Your task to perform on an android device: Go to display settings Image 0: 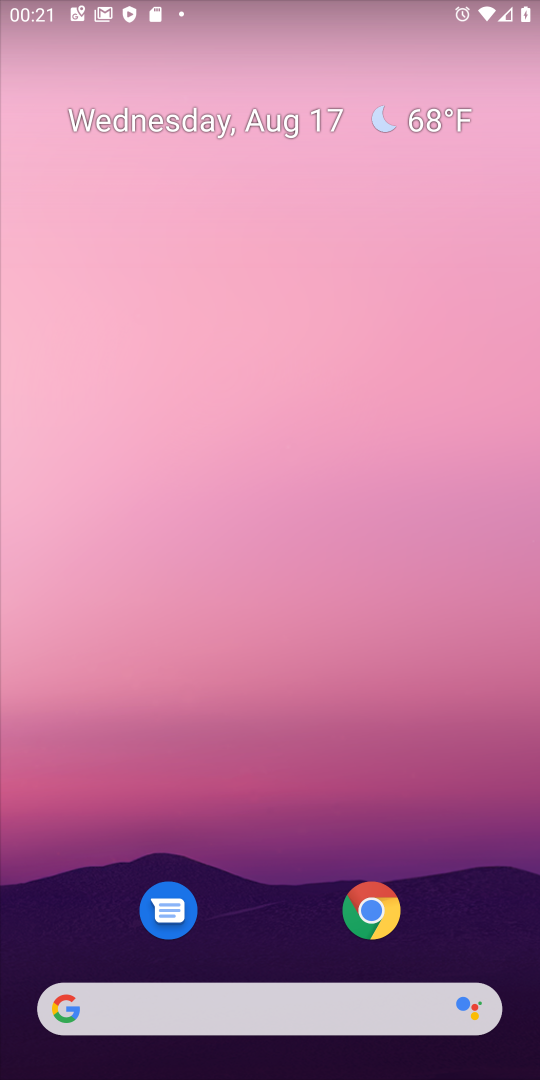
Step 0: drag from (262, 917) to (355, 74)
Your task to perform on an android device: Go to display settings Image 1: 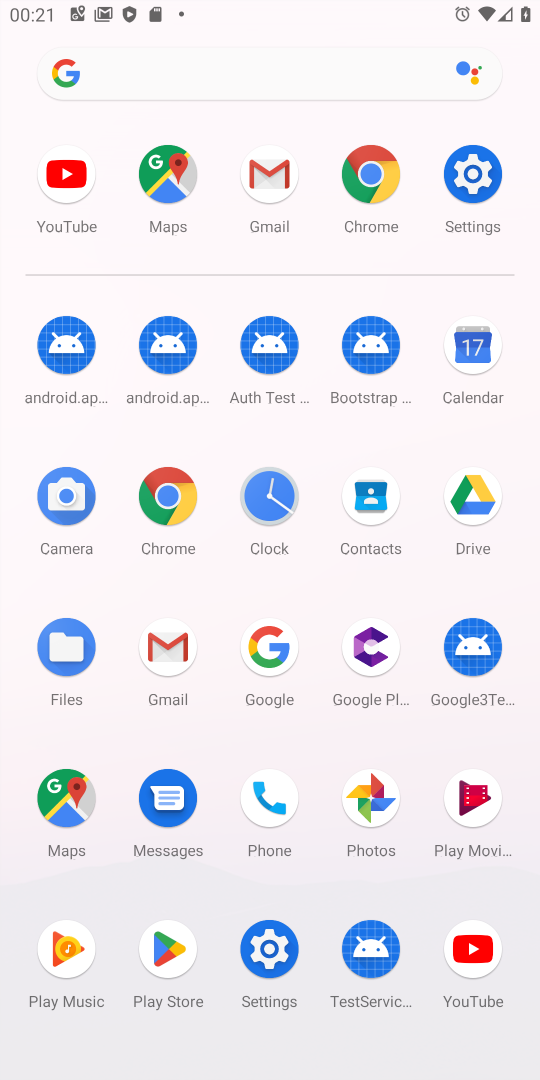
Step 1: click (269, 966)
Your task to perform on an android device: Go to display settings Image 2: 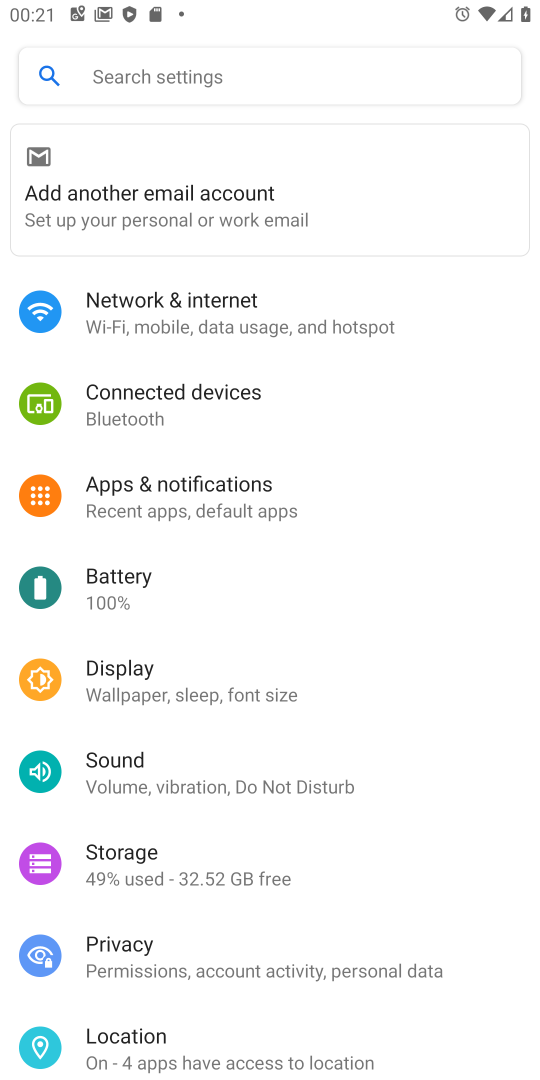
Step 2: click (105, 684)
Your task to perform on an android device: Go to display settings Image 3: 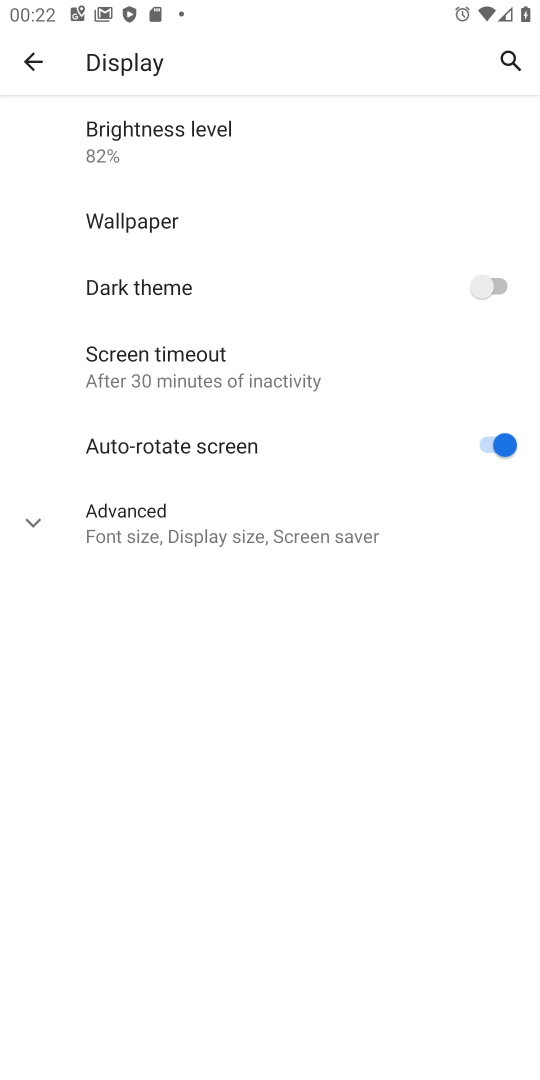
Step 3: task complete